Your task to perform on an android device: all mails in gmail Image 0: 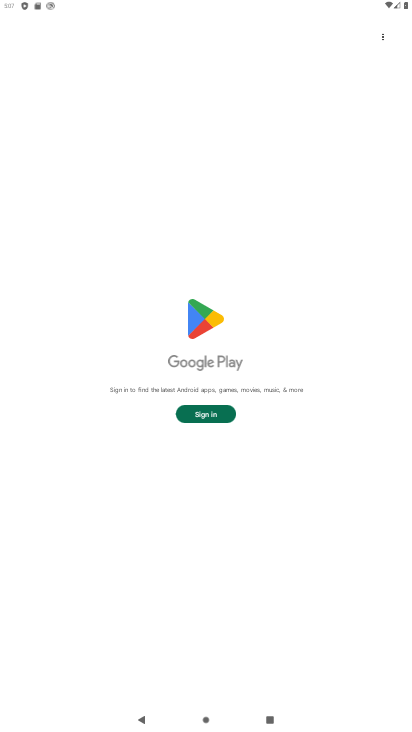
Step 0: press home button
Your task to perform on an android device: all mails in gmail Image 1: 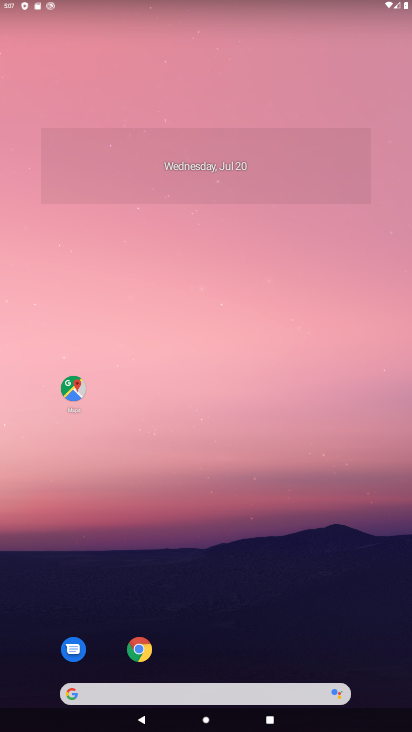
Step 1: drag from (337, 536) to (368, 126)
Your task to perform on an android device: all mails in gmail Image 2: 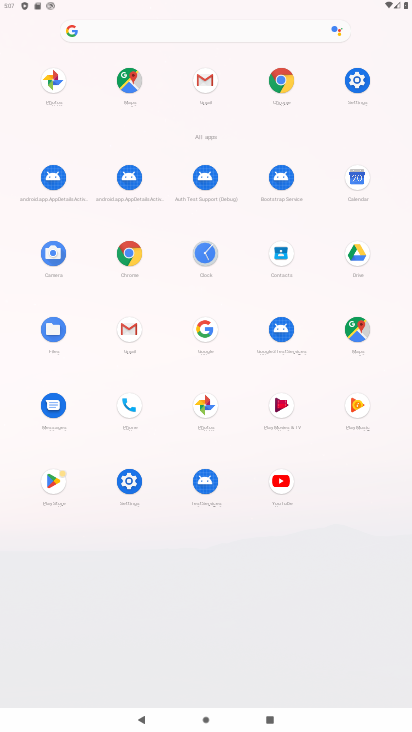
Step 2: click (208, 88)
Your task to perform on an android device: all mails in gmail Image 3: 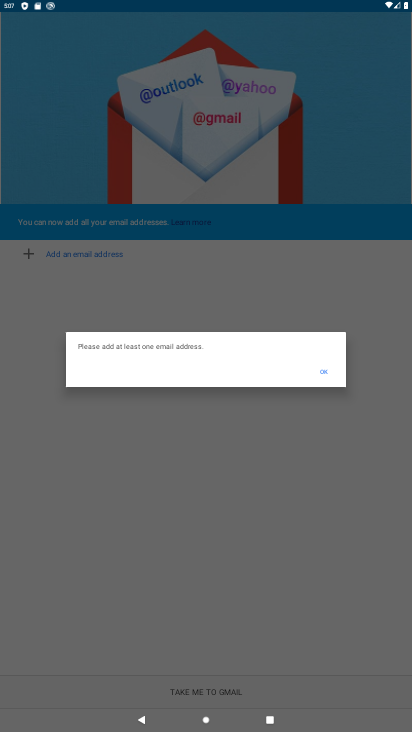
Step 3: task complete